Your task to perform on an android device: Clear the shopping cart on newegg. Image 0: 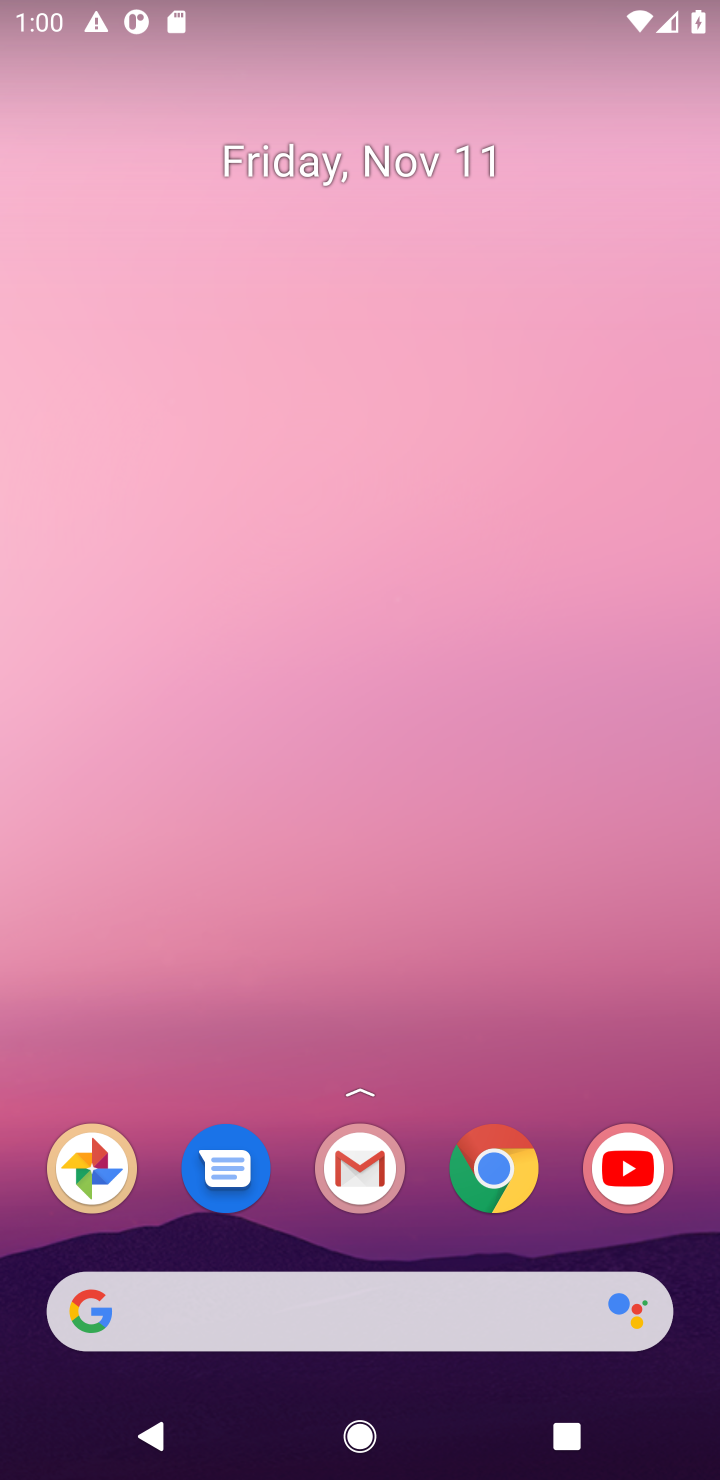
Step 0: click (493, 1175)
Your task to perform on an android device: Clear the shopping cart on newegg. Image 1: 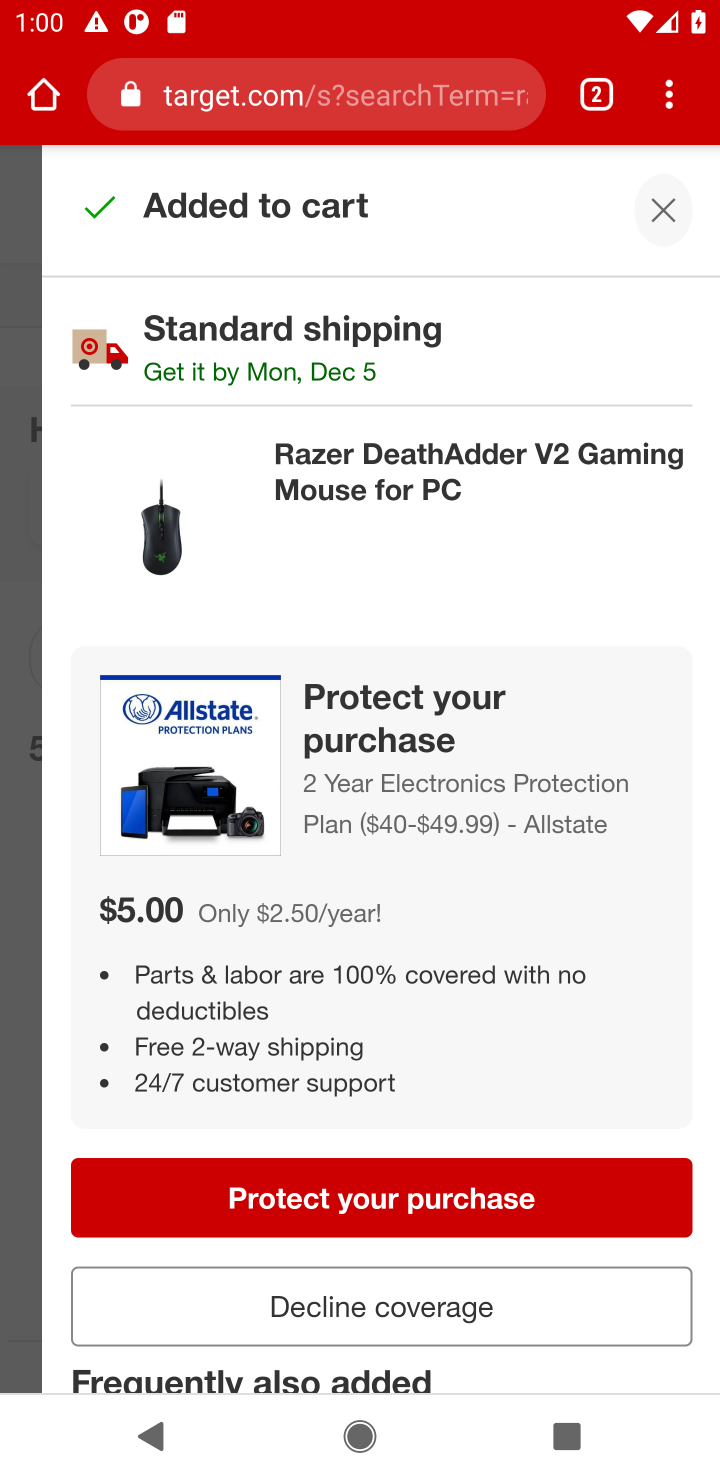
Step 1: click (386, 90)
Your task to perform on an android device: Clear the shopping cart on newegg. Image 2: 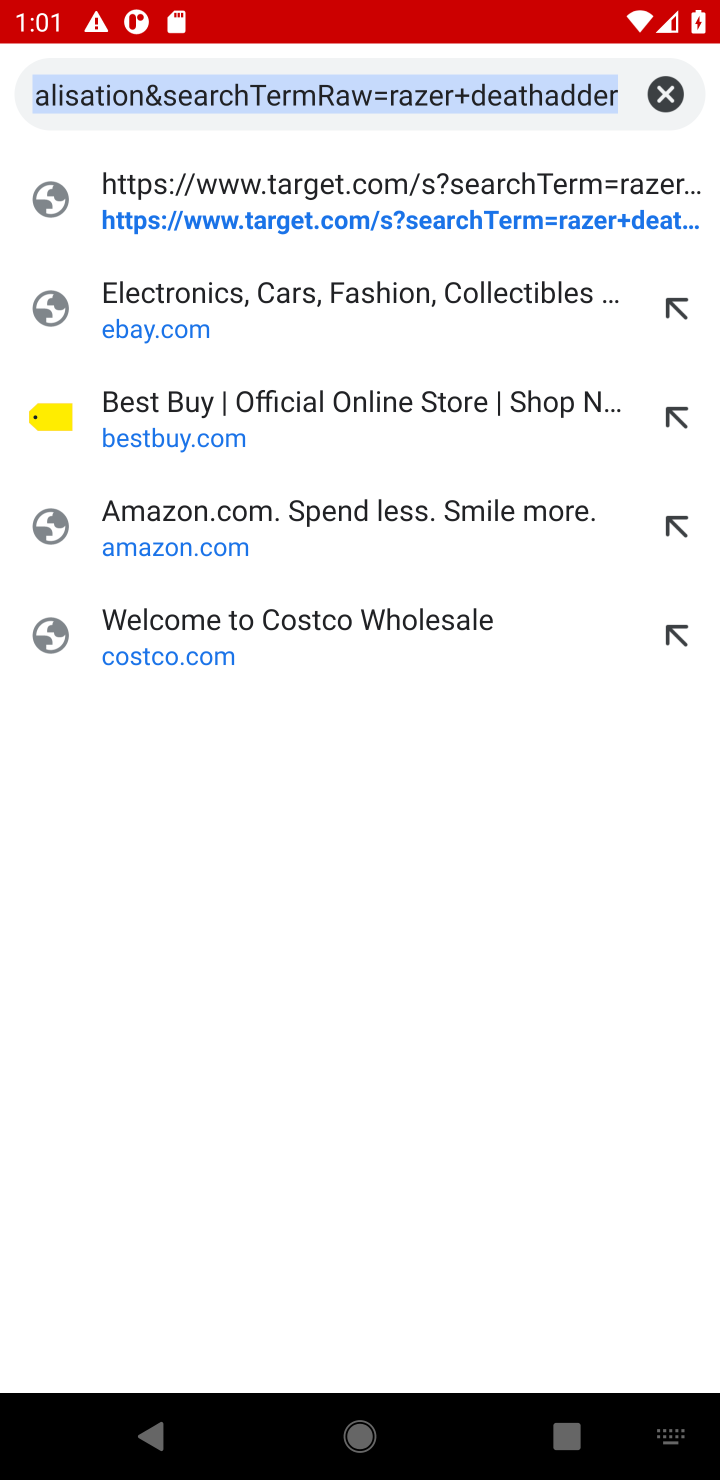
Step 2: type "newegg.com"
Your task to perform on an android device: Clear the shopping cart on newegg. Image 3: 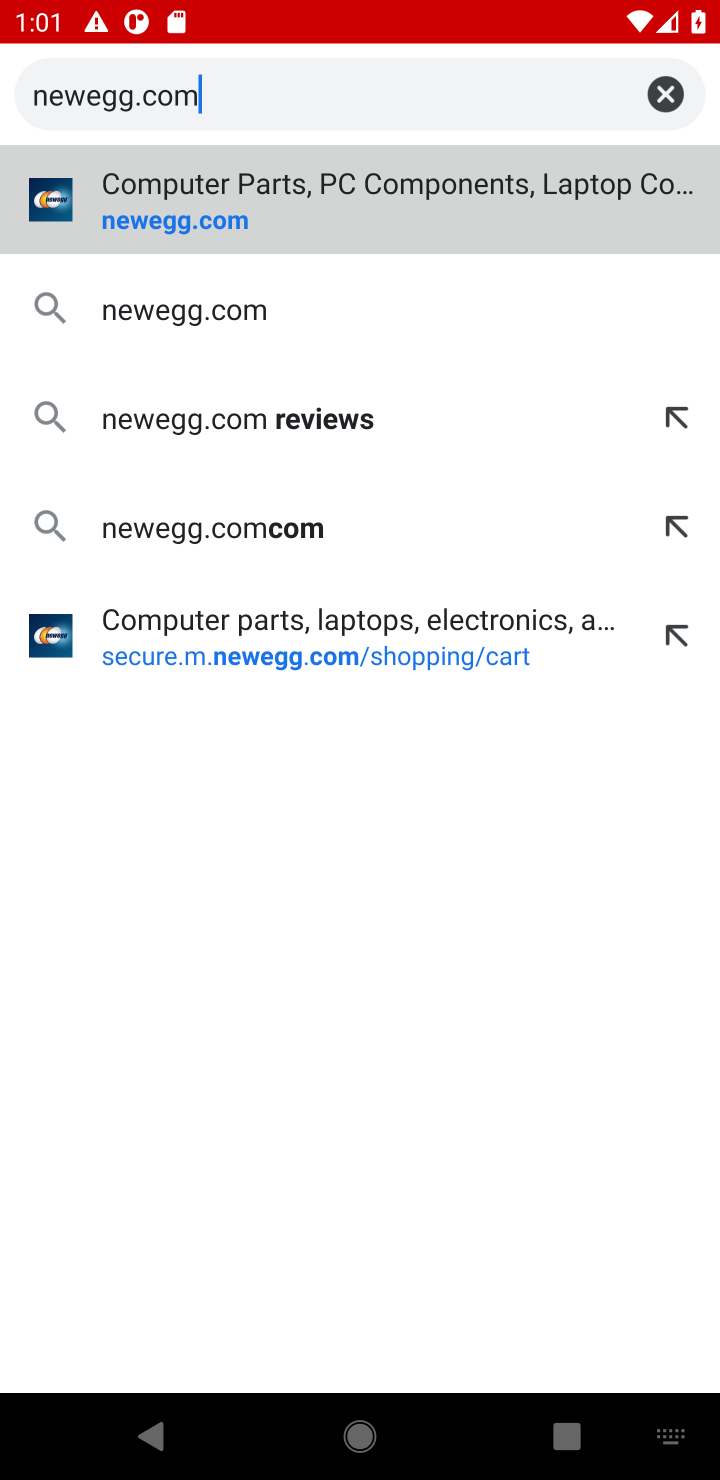
Step 3: click (146, 214)
Your task to perform on an android device: Clear the shopping cart on newegg. Image 4: 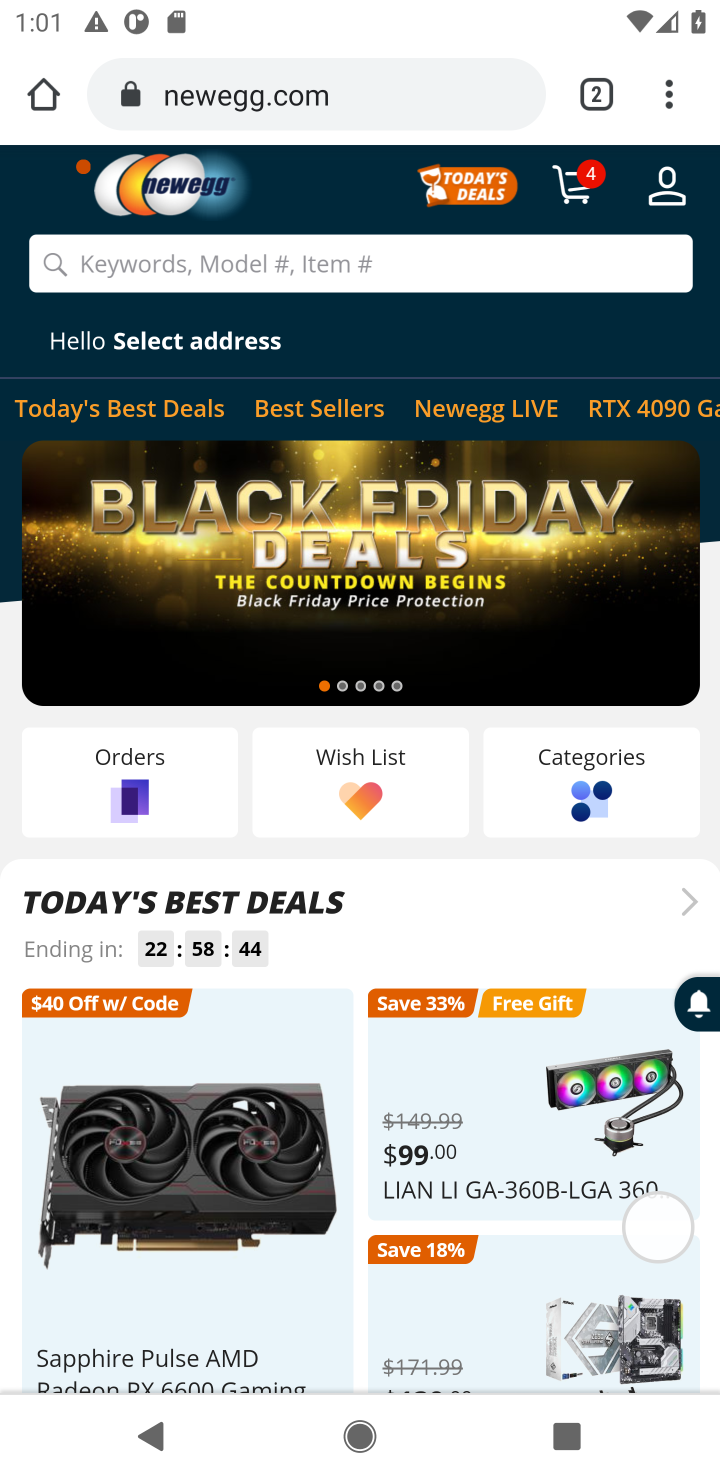
Step 4: click (598, 176)
Your task to perform on an android device: Clear the shopping cart on newegg. Image 5: 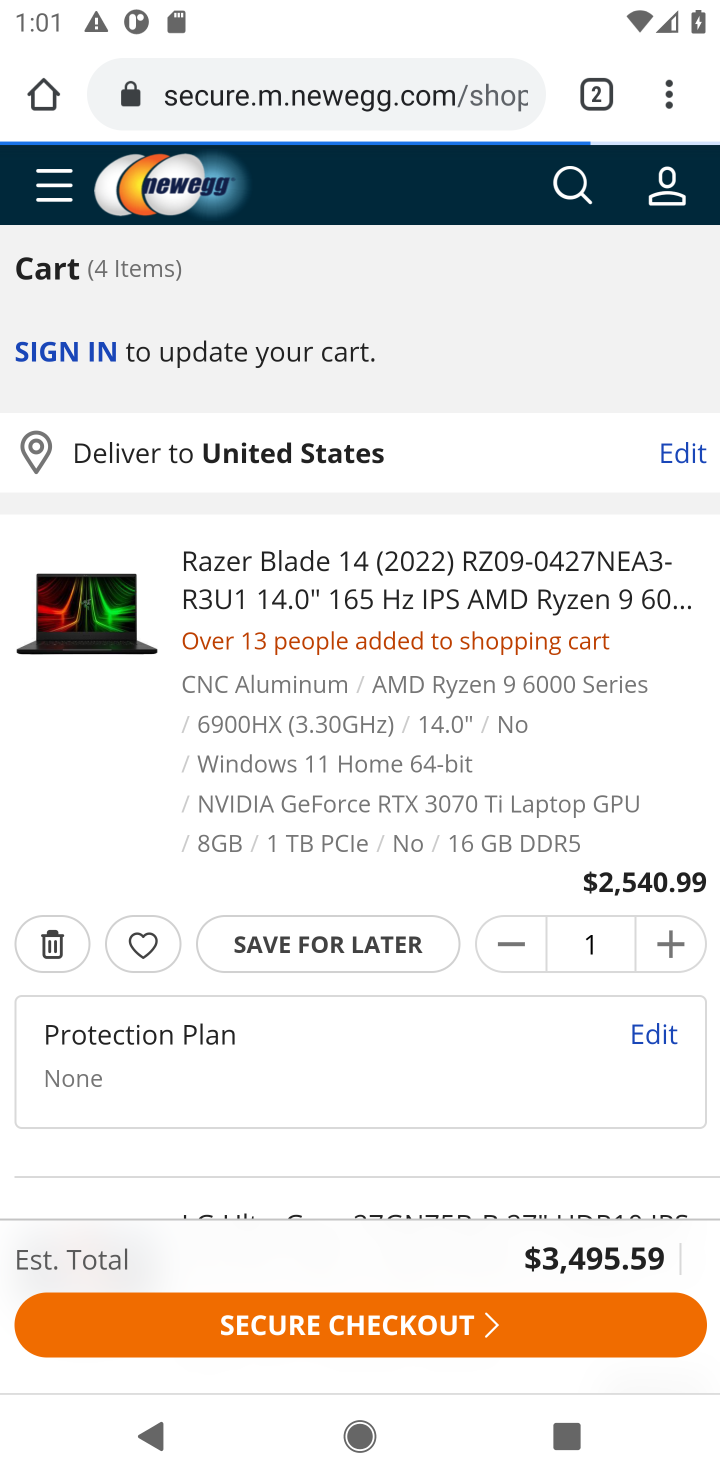
Step 5: click (47, 949)
Your task to perform on an android device: Clear the shopping cart on newegg. Image 6: 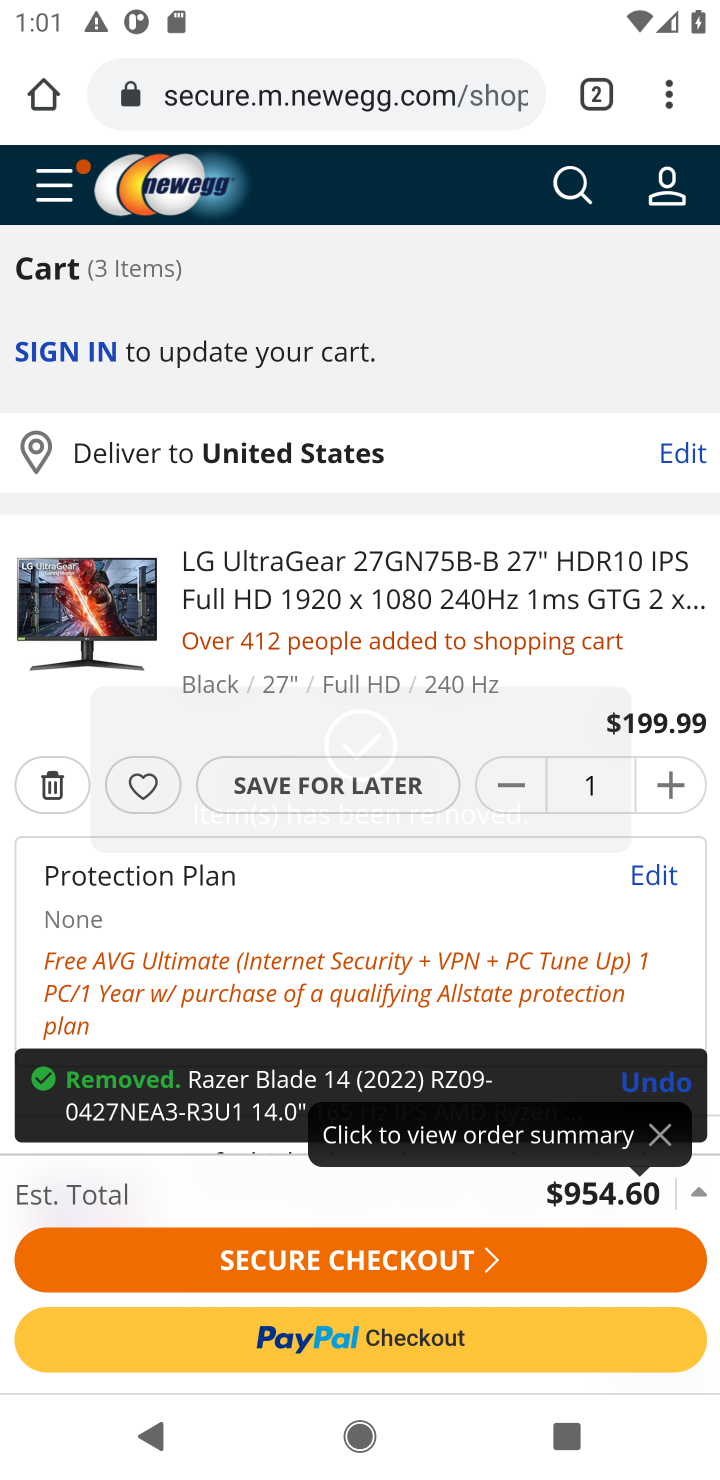
Step 6: click (51, 793)
Your task to perform on an android device: Clear the shopping cart on newegg. Image 7: 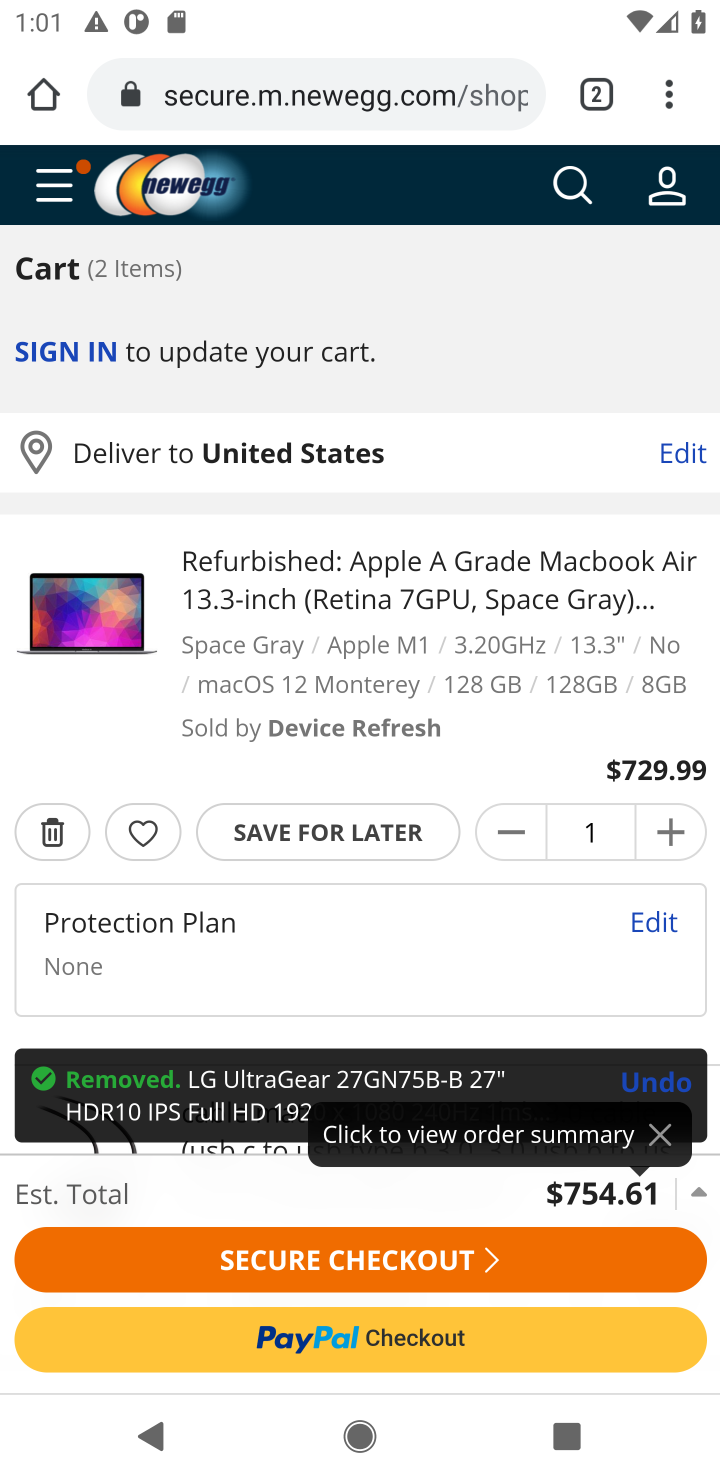
Step 7: click (49, 823)
Your task to perform on an android device: Clear the shopping cart on newegg. Image 8: 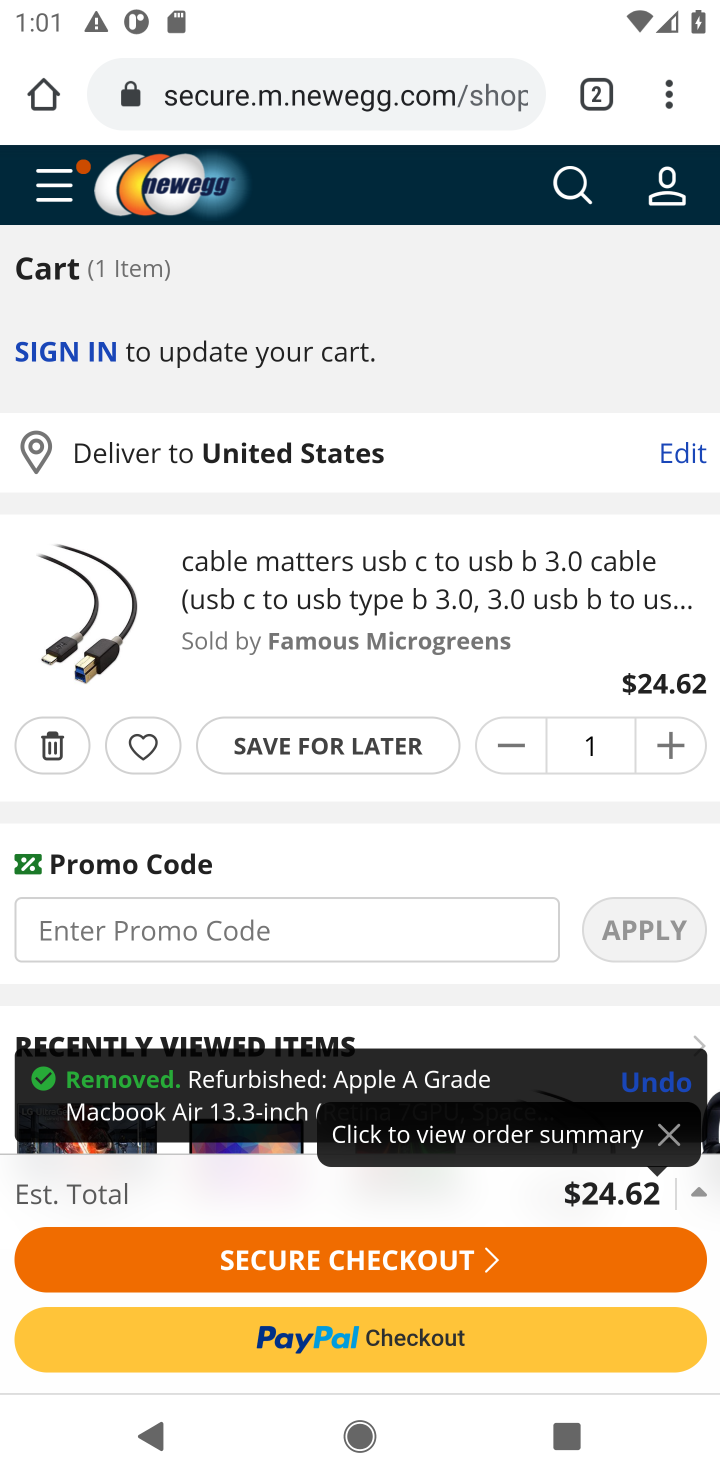
Step 8: click (51, 748)
Your task to perform on an android device: Clear the shopping cart on newegg. Image 9: 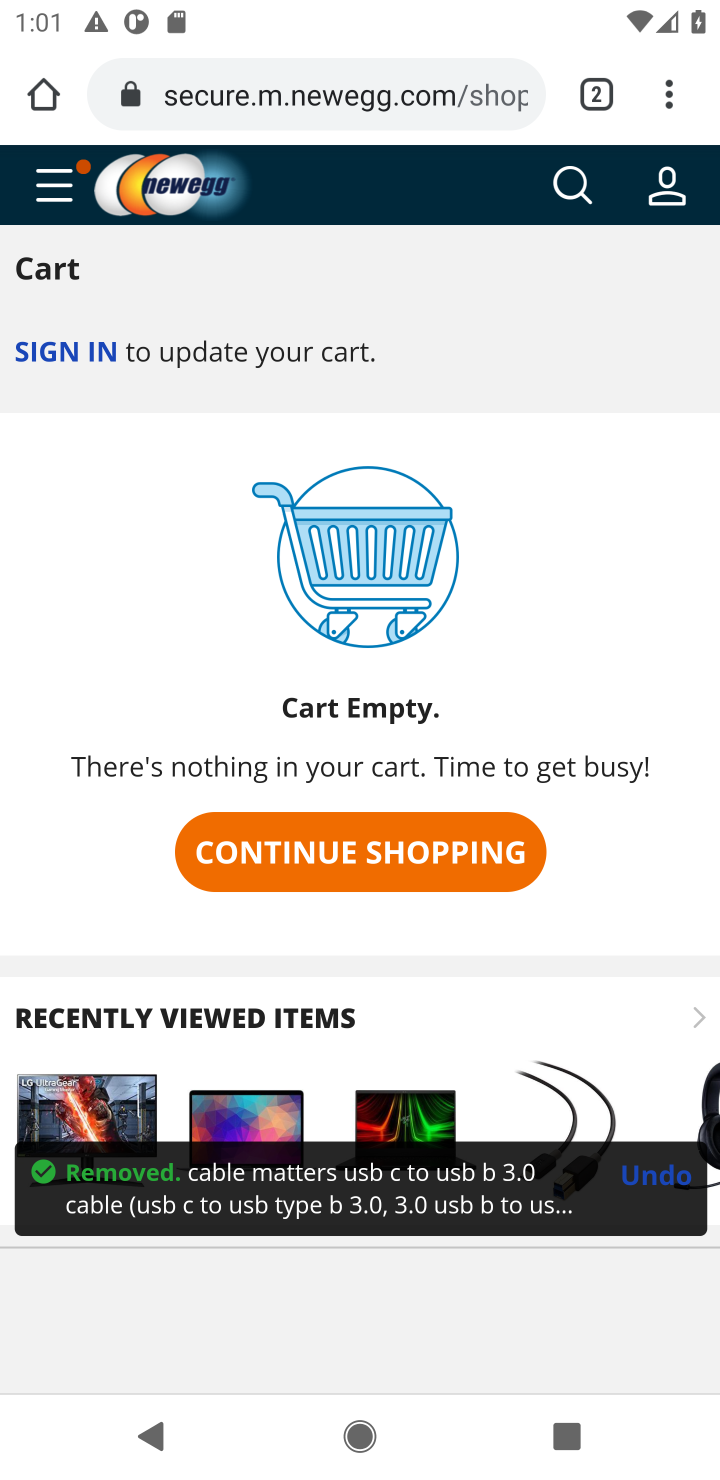
Step 9: task complete